Your task to perform on an android device: toggle wifi Image 0: 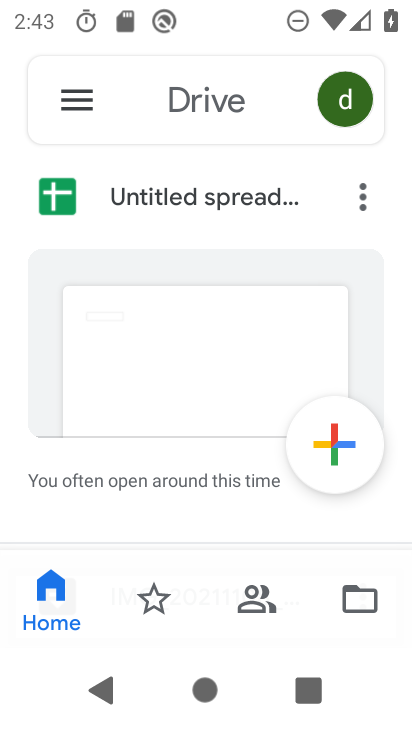
Step 0: press home button
Your task to perform on an android device: toggle wifi Image 1: 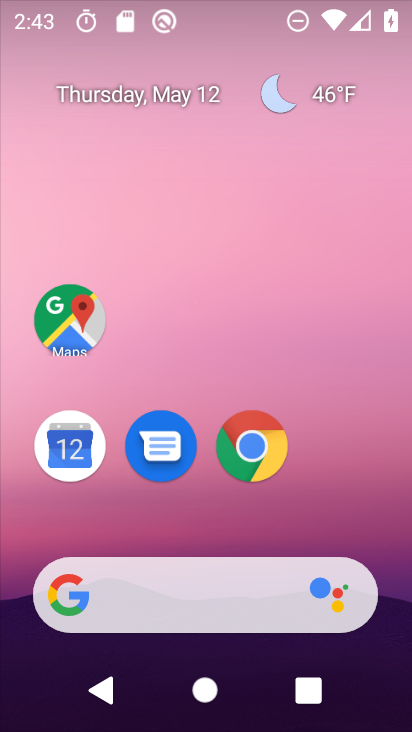
Step 1: drag from (206, 531) to (177, 317)
Your task to perform on an android device: toggle wifi Image 2: 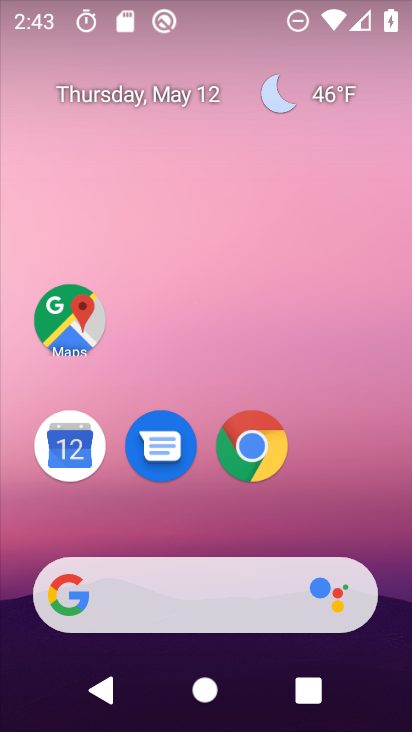
Step 2: drag from (197, 523) to (158, 132)
Your task to perform on an android device: toggle wifi Image 3: 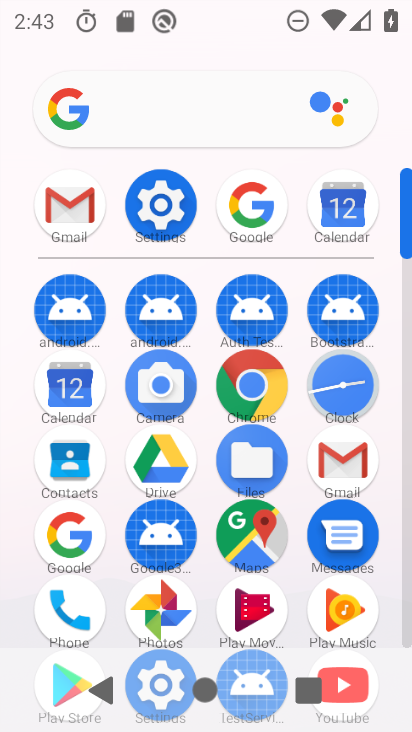
Step 3: click (167, 182)
Your task to perform on an android device: toggle wifi Image 4: 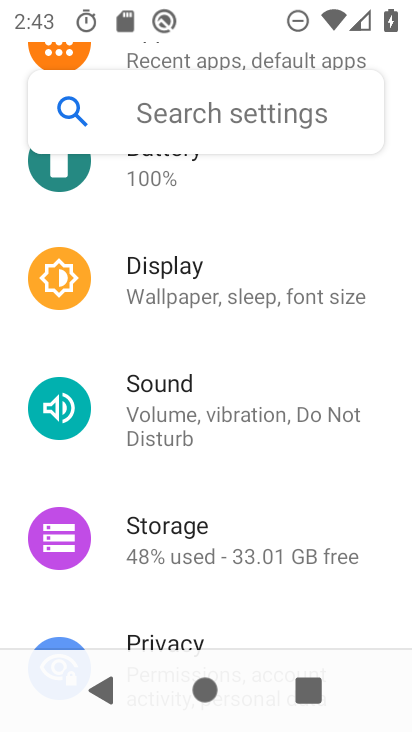
Step 4: drag from (167, 182) to (178, 573)
Your task to perform on an android device: toggle wifi Image 5: 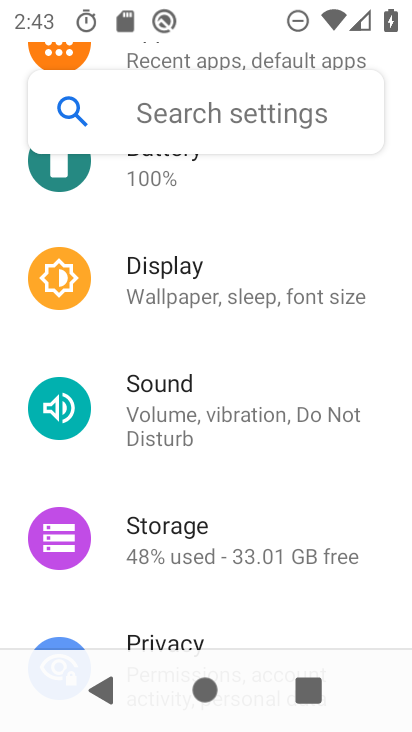
Step 5: drag from (194, 232) to (200, 529)
Your task to perform on an android device: toggle wifi Image 6: 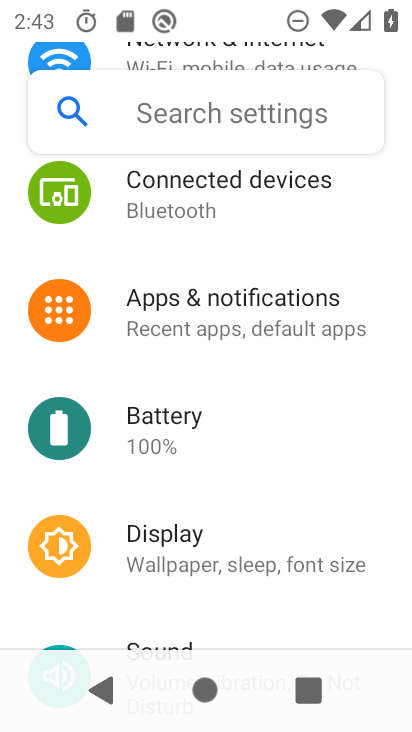
Step 6: drag from (169, 224) to (182, 498)
Your task to perform on an android device: toggle wifi Image 7: 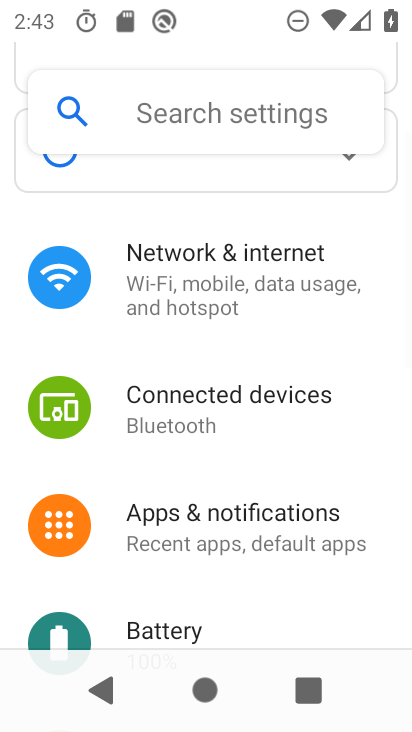
Step 7: click (142, 263)
Your task to perform on an android device: toggle wifi Image 8: 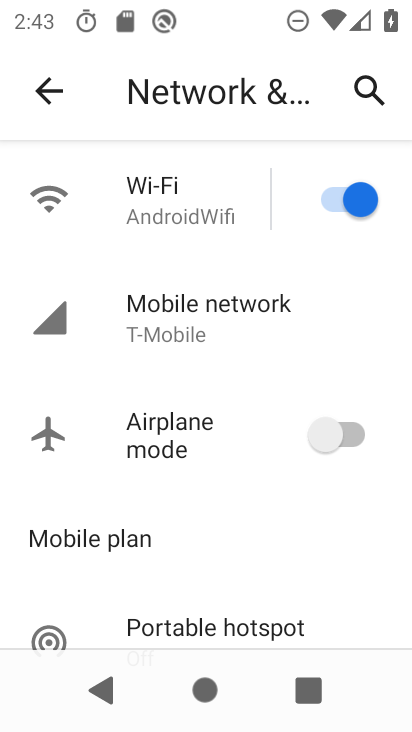
Step 8: click (326, 201)
Your task to perform on an android device: toggle wifi Image 9: 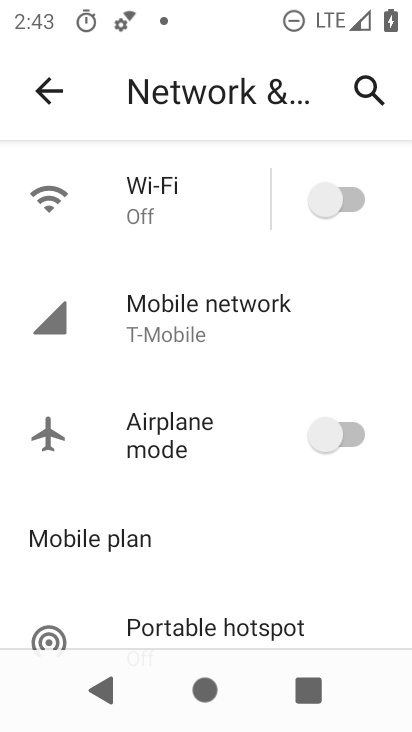
Step 9: task complete